Your task to perform on an android device: Open CNN.com Image 0: 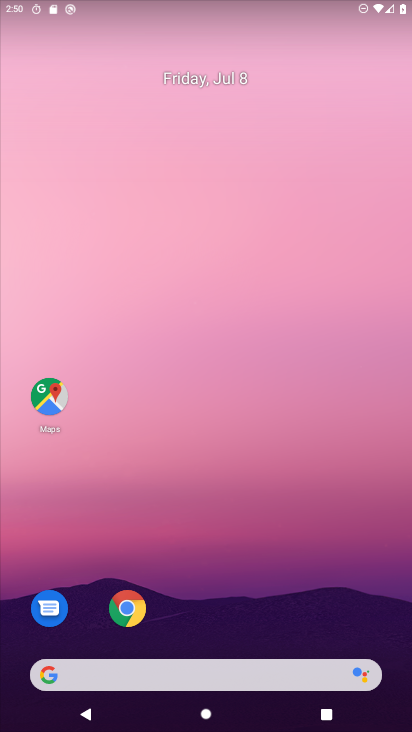
Step 0: click (127, 610)
Your task to perform on an android device: Open CNN.com Image 1: 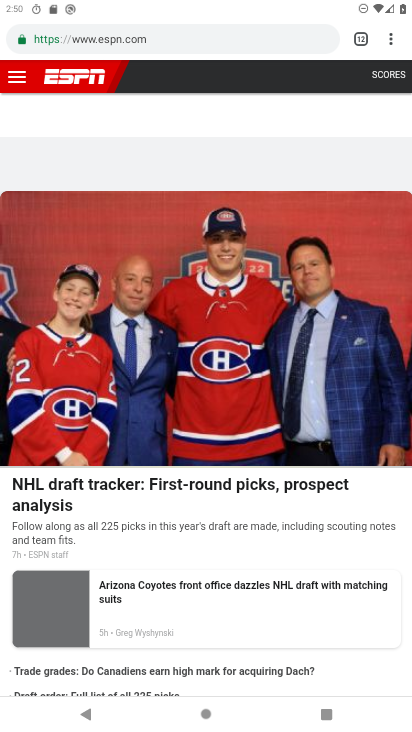
Step 1: click (391, 42)
Your task to perform on an android device: Open CNN.com Image 2: 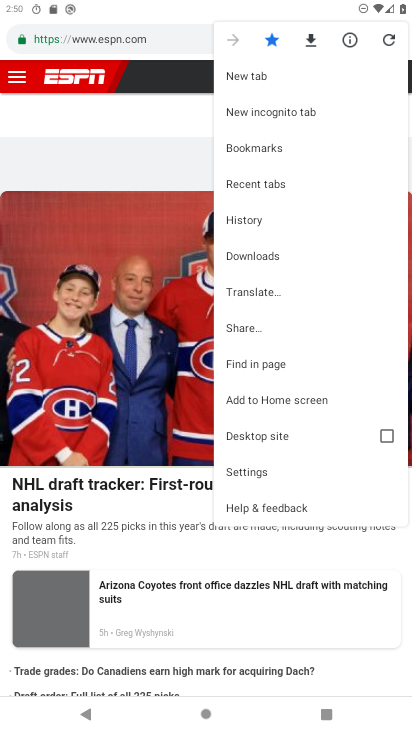
Step 2: click (254, 78)
Your task to perform on an android device: Open CNN.com Image 3: 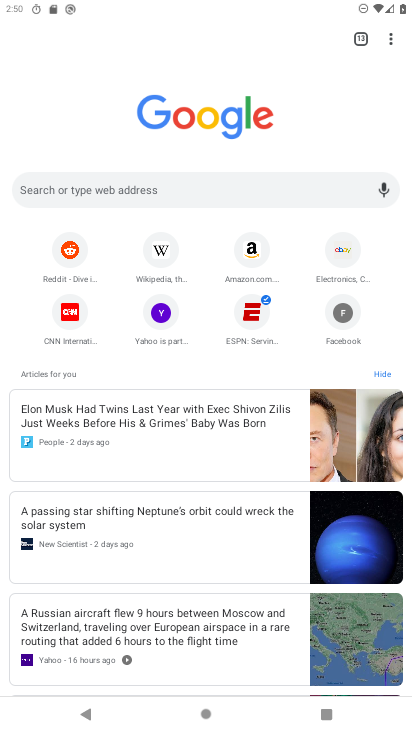
Step 3: click (70, 308)
Your task to perform on an android device: Open CNN.com Image 4: 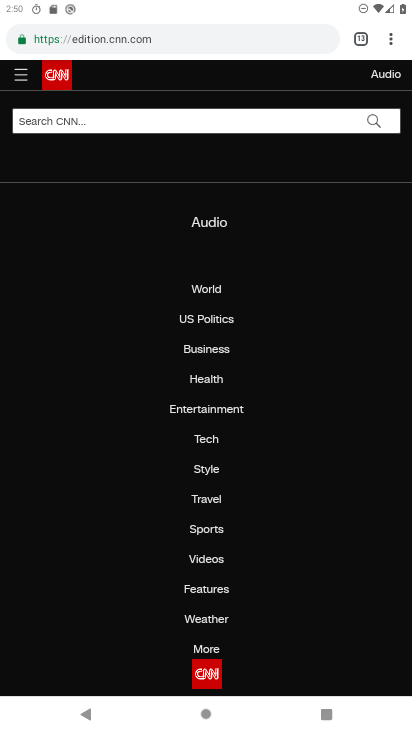
Step 4: task complete